Your task to perform on an android device: move an email to a new category in the gmail app Image 0: 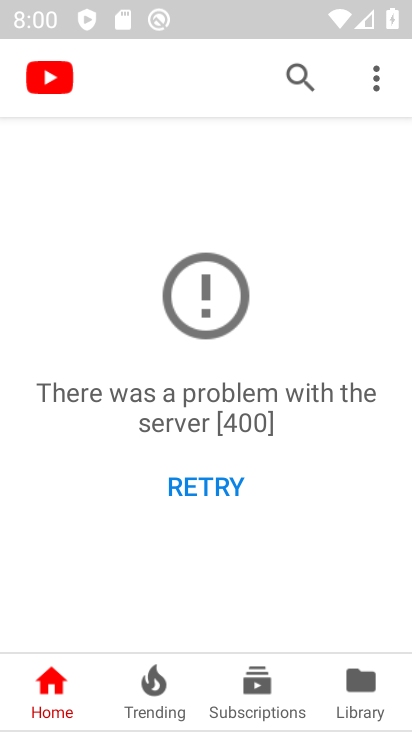
Step 0: press home button
Your task to perform on an android device: move an email to a new category in the gmail app Image 1: 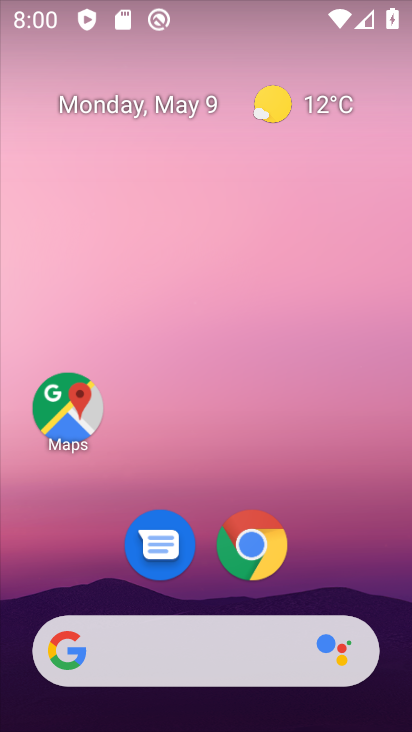
Step 1: drag from (209, 557) to (209, 192)
Your task to perform on an android device: move an email to a new category in the gmail app Image 2: 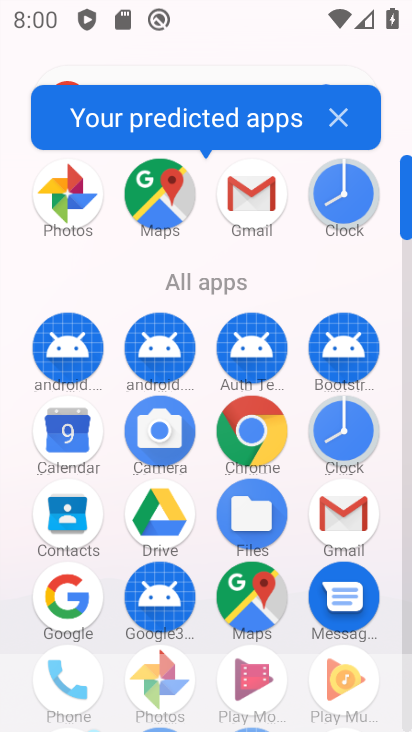
Step 2: drag from (211, 602) to (202, 204)
Your task to perform on an android device: move an email to a new category in the gmail app Image 3: 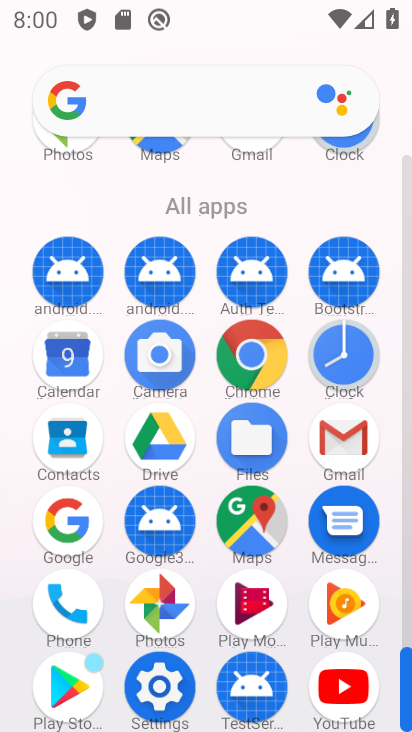
Step 3: click (350, 684)
Your task to perform on an android device: move an email to a new category in the gmail app Image 4: 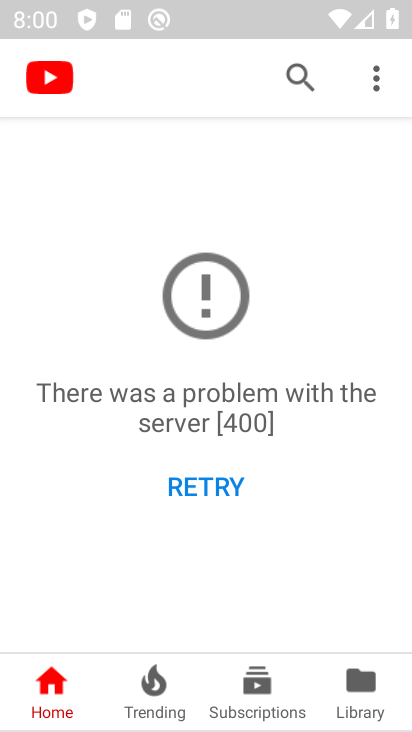
Step 4: press home button
Your task to perform on an android device: move an email to a new category in the gmail app Image 5: 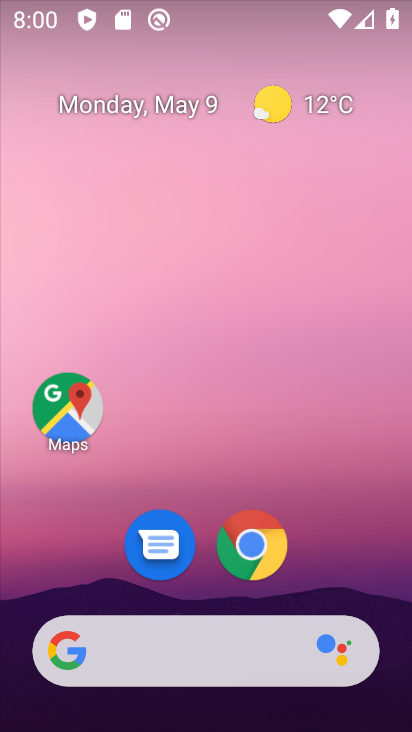
Step 5: drag from (229, 720) to (233, 224)
Your task to perform on an android device: move an email to a new category in the gmail app Image 6: 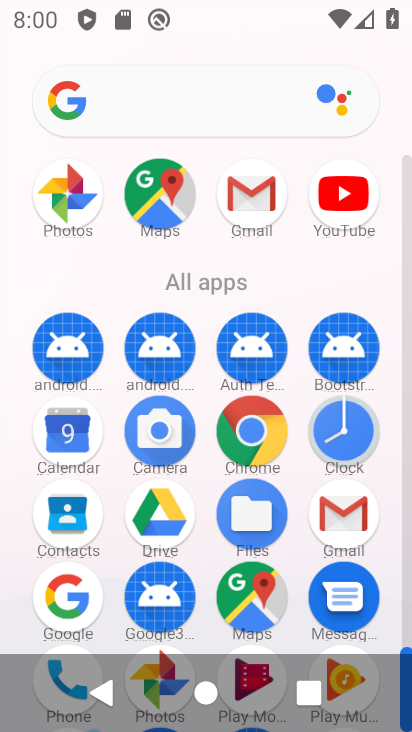
Step 6: click (341, 514)
Your task to perform on an android device: move an email to a new category in the gmail app Image 7: 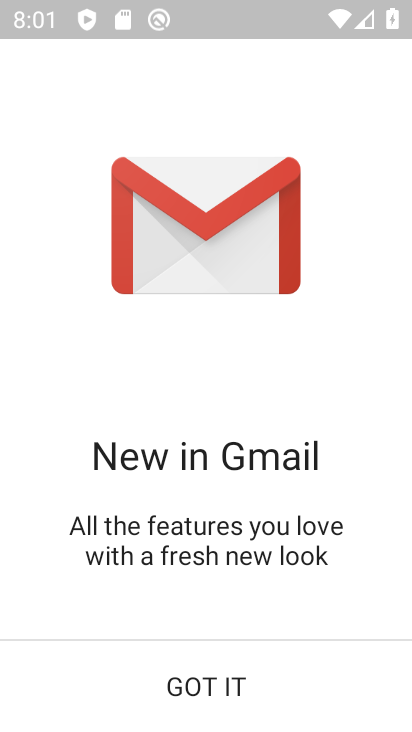
Step 7: click (189, 684)
Your task to perform on an android device: move an email to a new category in the gmail app Image 8: 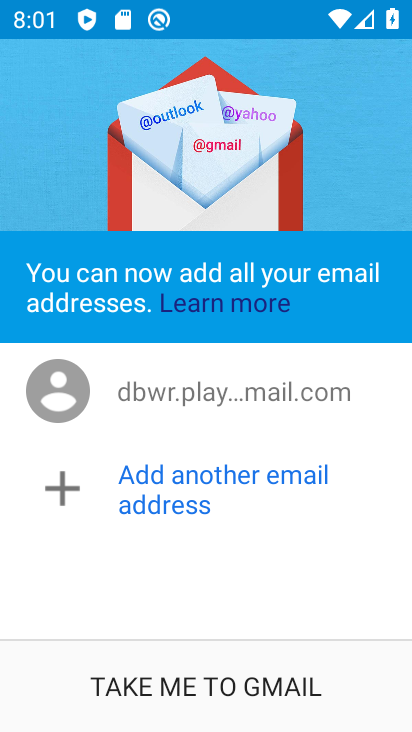
Step 8: click (224, 690)
Your task to perform on an android device: move an email to a new category in the gmail app Image 9: 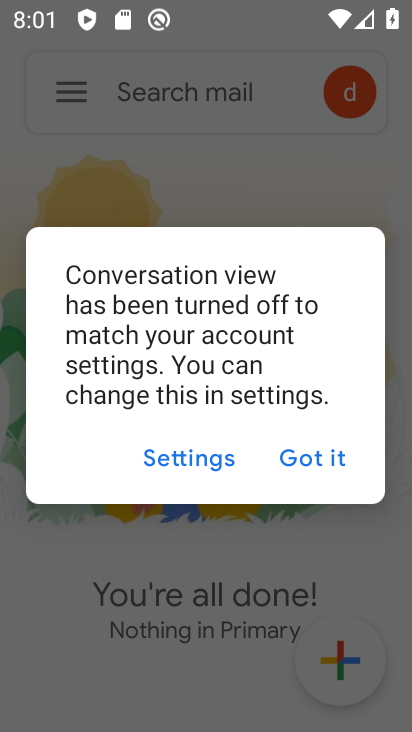
Step 9: click (329, 457)
Your task to perform on an android device: move an email to a new category in the gmail app Image 10: 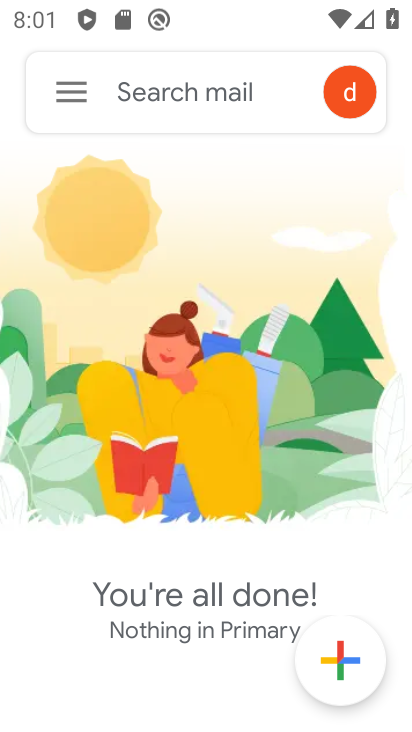
Step 10: click (69, 94)
Your task to perform on an android device: move an email to a new category in the gmail app Image 11: 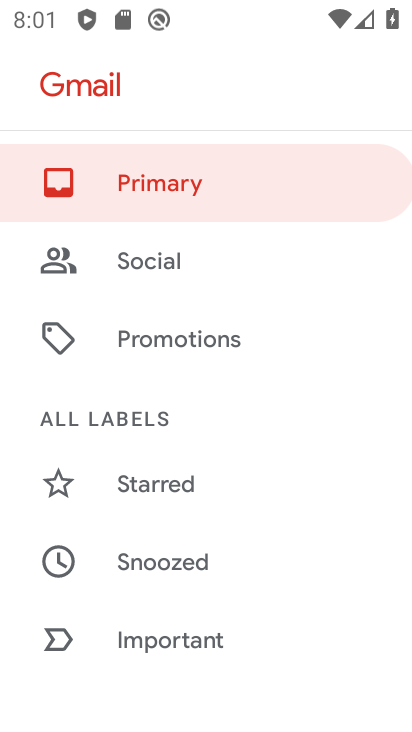
Step 11: drag from (230, 276) to (256, 461)
Your task to perform on an android device: move an email to a new category in the gmail app Image 12: 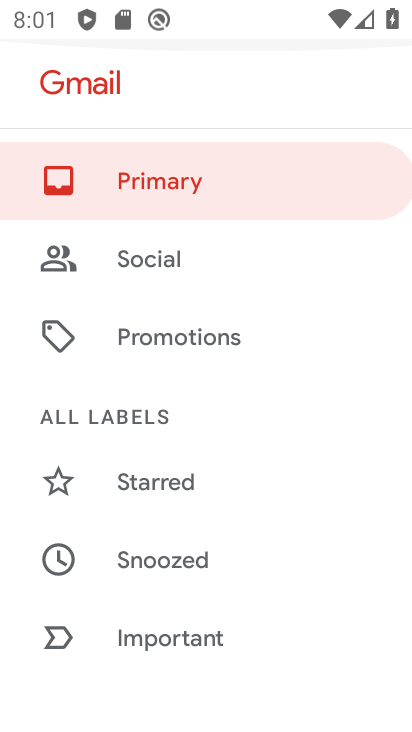
Step 12: click (219, 189)
Your task to perform on an android device: move an email to a new category in the gmail app Image 13: 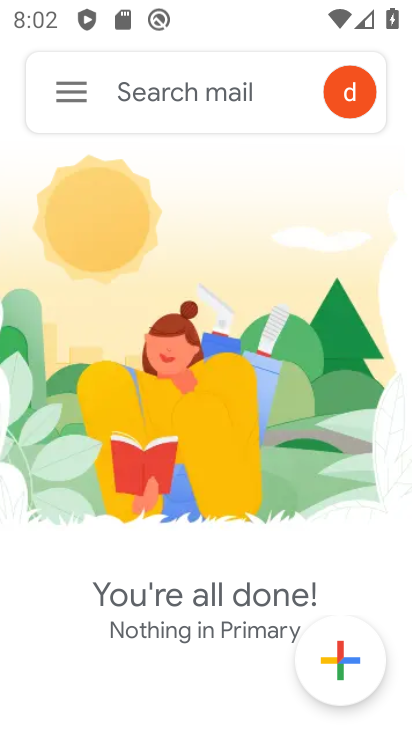
Step 13: task complete